Your task to perform on an android device: allow notifications from all sites in the chrome app Image 0: 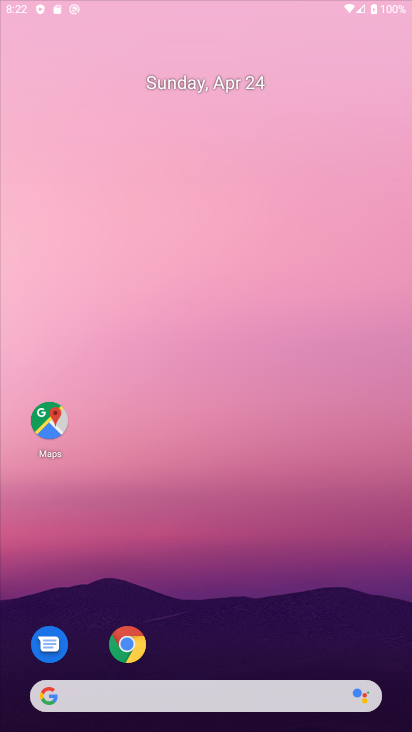
Step 0: click (311, 131)
Your task to perform on an android device: allow notifications from all sites in the chrome app Image 1: 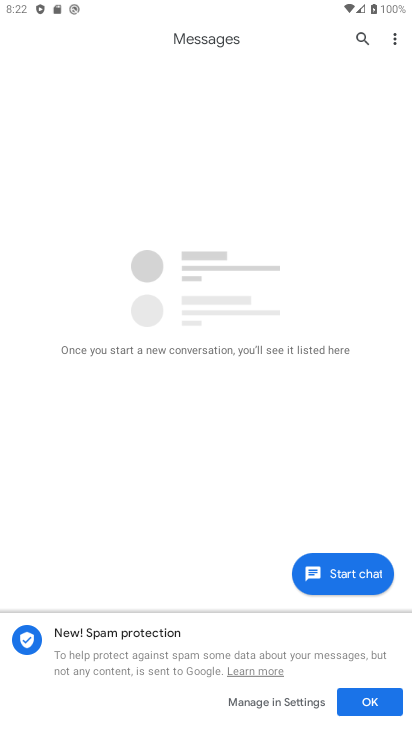
Step 1: press home button
Your task to perform on an android device: allow notifications from all sites in the chrome app Image 2: 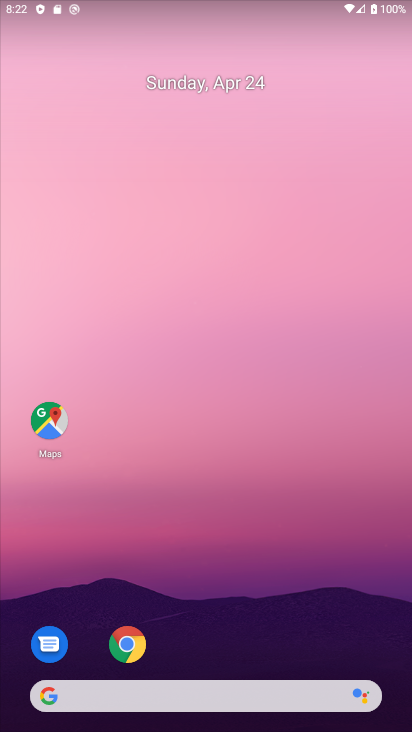
Step 2: drag from (228, 457) to (234, 0)
Your task to perform on an android device: allow notifications from all sites in the chrome app Image 3: 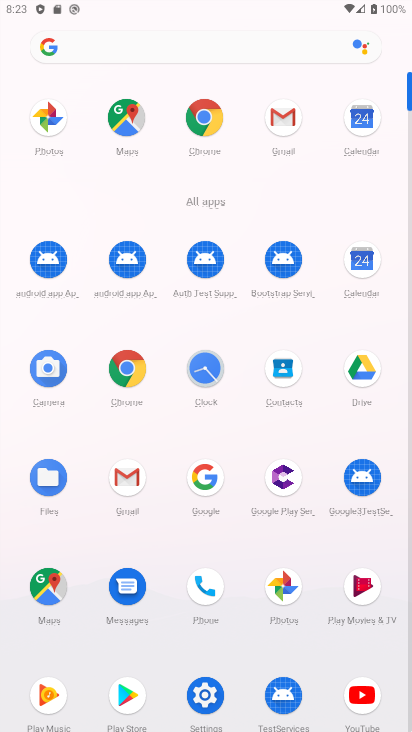
Step 3: click (121, 370)
Your task to perform on an android device: allow notifications from all sites in the chrome app Image 4: 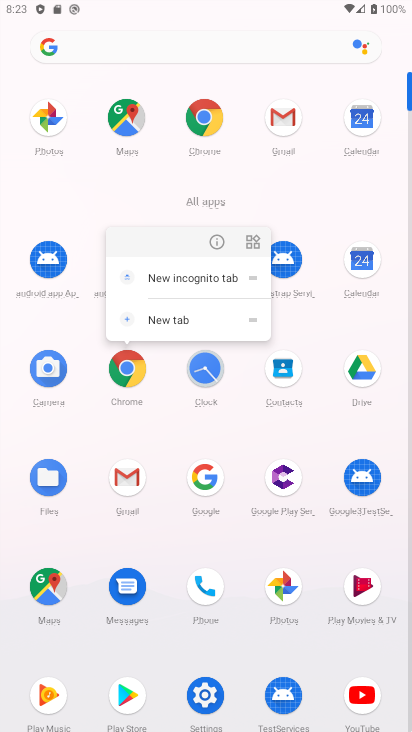
Step 4: click (218, 238)
Your task to perform on an android device: allow notifications from all sites in the chrome app Image 5: 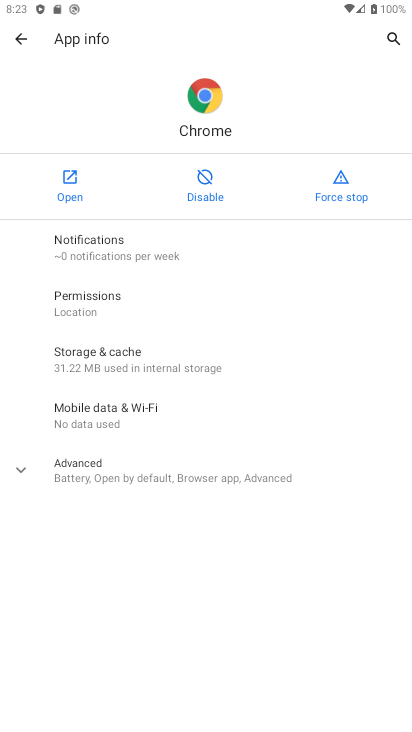
Step 5: click (75, 186)
Your task to perform on an android device: allow notifications from all sites in the chrome app Image 6: 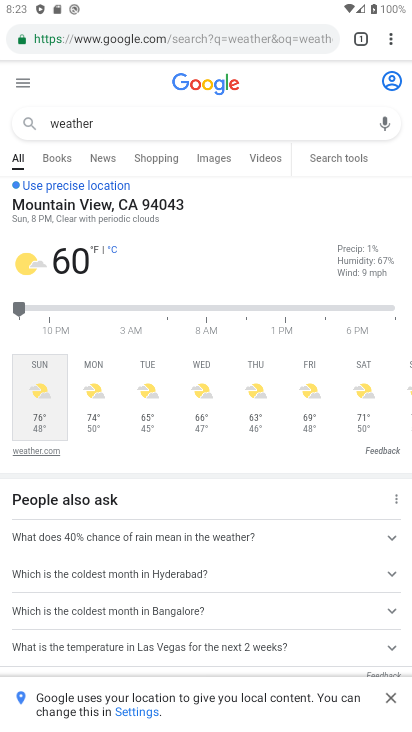
Step 6: click (176, 44)
Your task to perform on an android device: allow notifications from all sites in the chrome app Image 7: 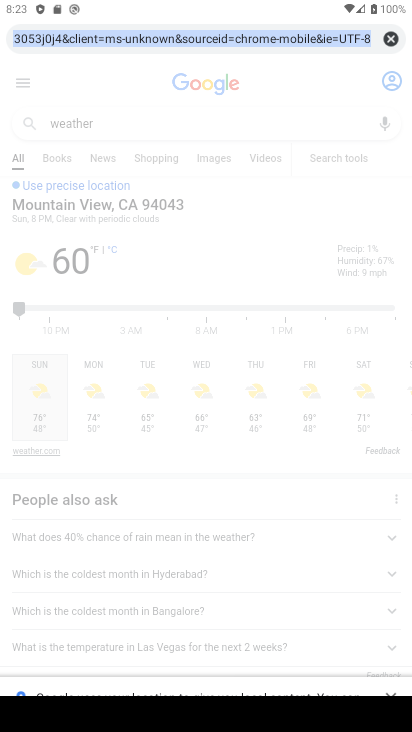
Step 7: click (389, 37)
Your task to perform on an android device: allow notifications from all sites in the chrome app Image 8: 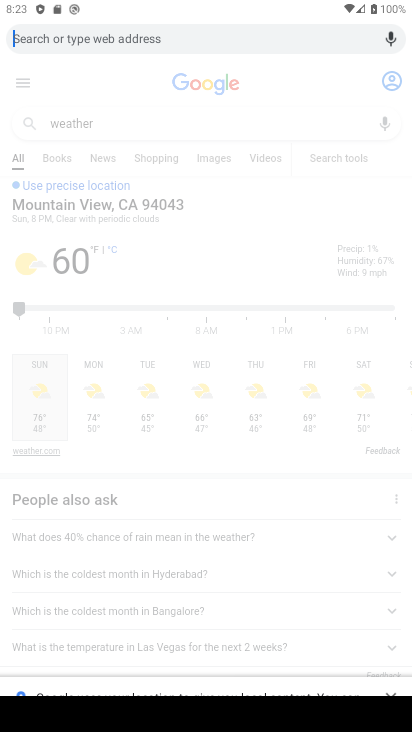
Step 8: click (240, 36)
Your task to perform on an android device: allow notifications from all sites in the chrome app Image 9: 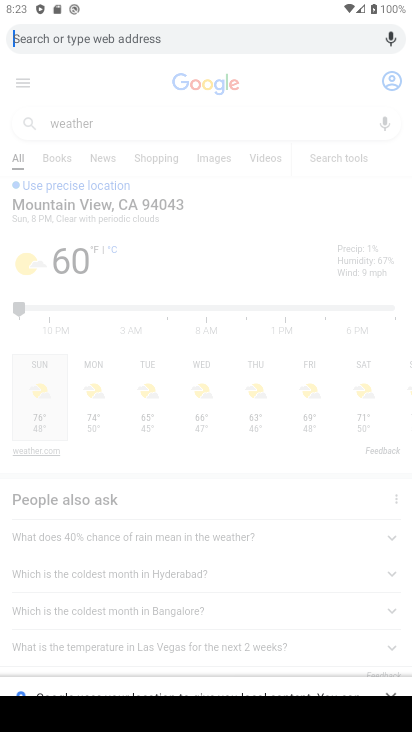
Step 9: drag from (227, 558) to (375, 296)
Your task to perform on an android device: allow notifications from all sites in the chrome app Image 10: 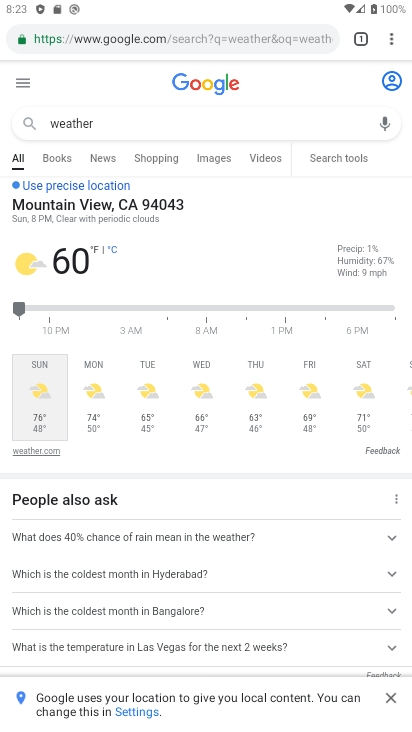
Step 10: click (329, 196)
Your task to perform on an android device: allow notifications from all sites in the chrome app Image 11: 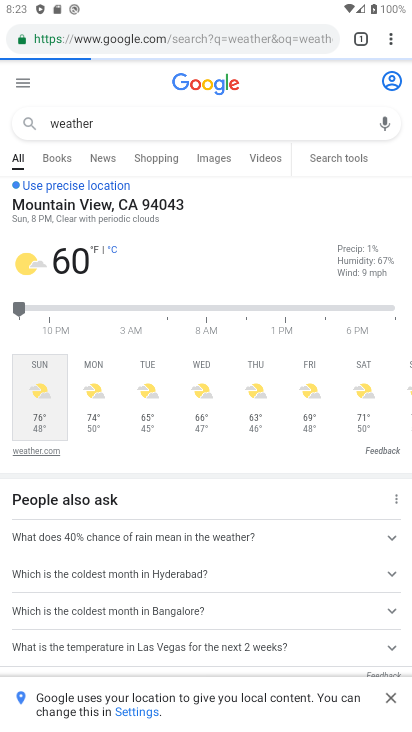
Step 11: drag from (384, 55) to (337, 415)
Your task to perform on an android device: allow notifications from all sites in the chrome app Image 12: 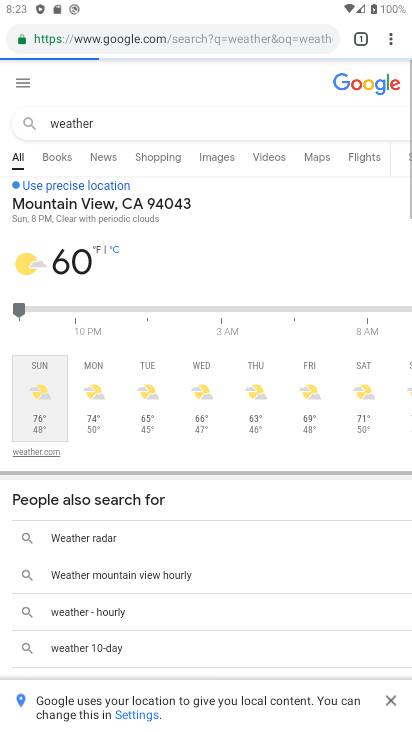
Step 12: drag from (392, 33) to (270, 437)
Your task to perform on an android device: allow notifications from all sites in the chrome app Image 13: 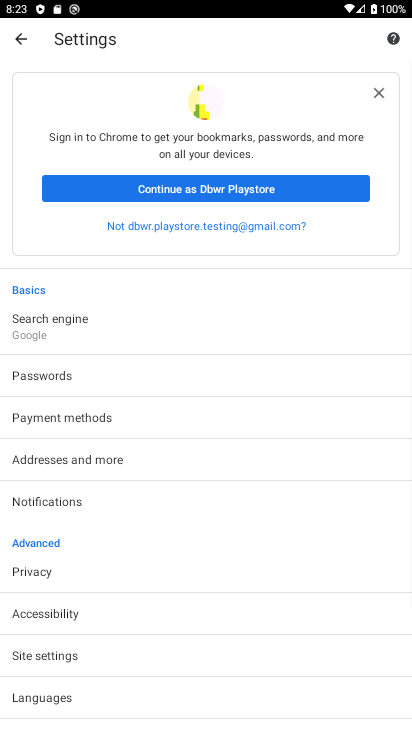
Step 13: drag from (133, 585) to (218, 300)
Your task to perform on an android device: allow notifications from all sites in the chrome app Image 14: 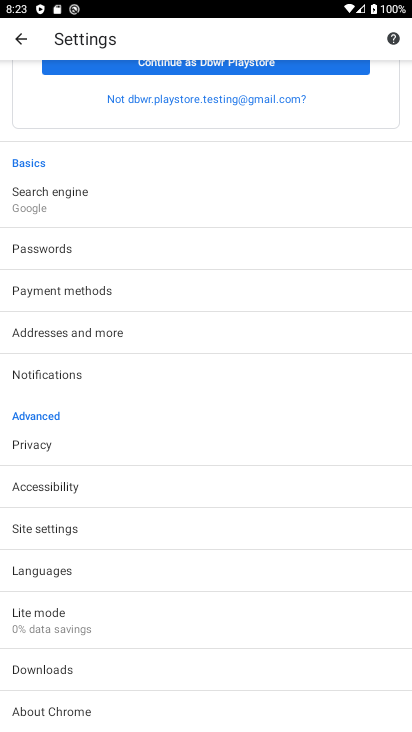
Step 14: click (65, 532)
Your task to perform on an android device: allow notifications from all sites in the chrome app Image 15: 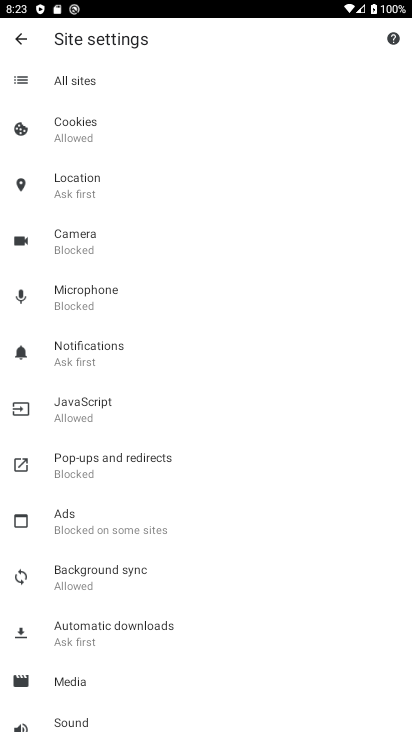
Step 15: click (138, 343)
Your task to perform on an android device: allow notifications from all sites in the chrome app Image 16: 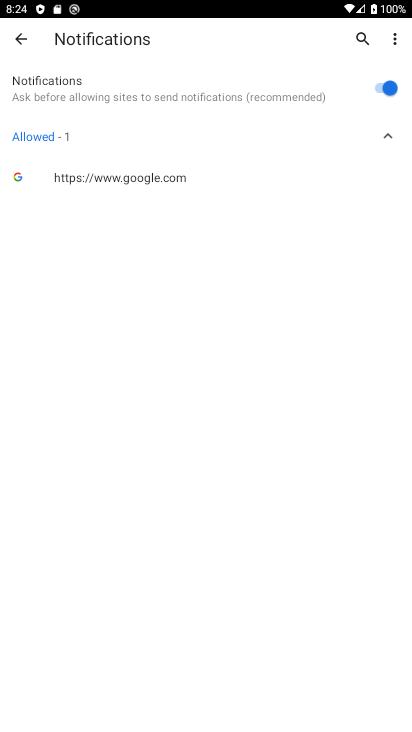
Step 16: task complete